Your task to perform on an android device: Show me popular videos on Youtube Image 0: 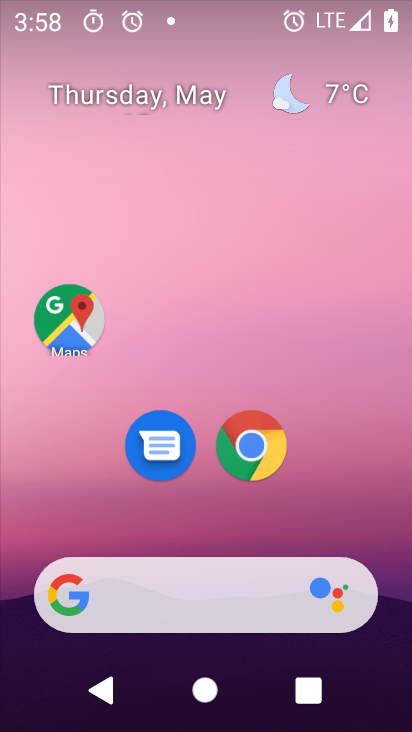
Step 0: press home button
Your task to perform on an android device: Show me popular videos on Youtube Image 1: 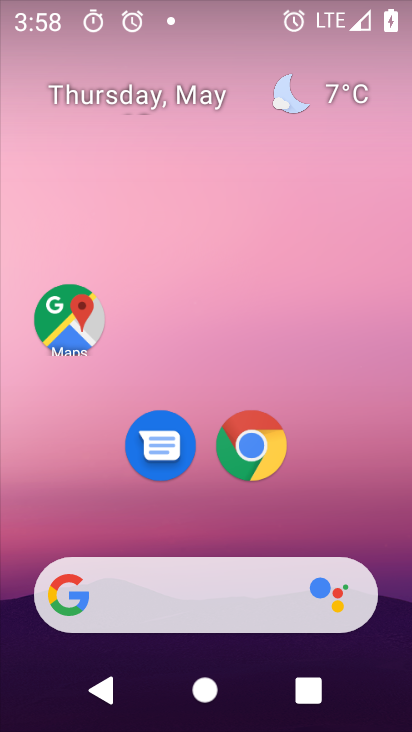
Step 1: drag from (367, 532) to (412, 715)
Your task to perform on an android device: Show me popular videos on Youtube Image 2: 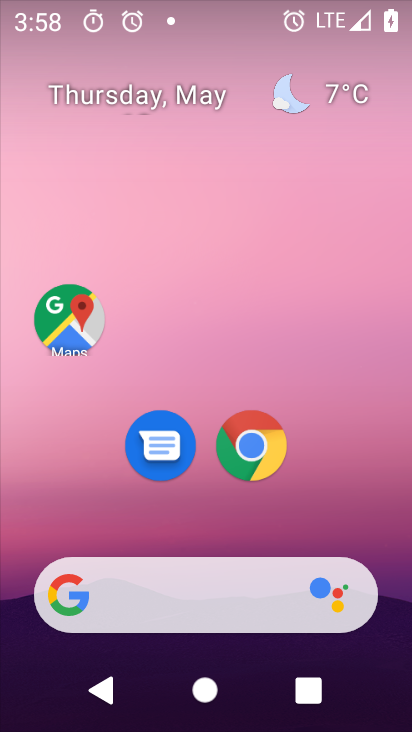
Step 2: drag from (408, 627) to (355, 688)
Your task to perform on an android device: Show me popular videos on Youtube Image 3: 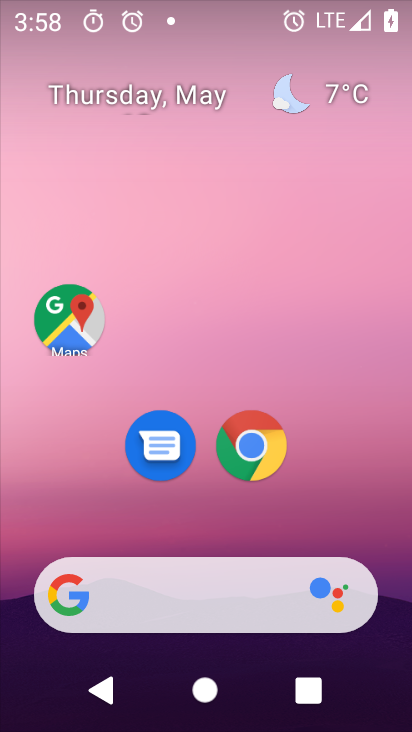
Step 3: drag from (369, 519) to (381, 3)
Your task to perform on an android device: Show me popular videos on Youtube Image 4: 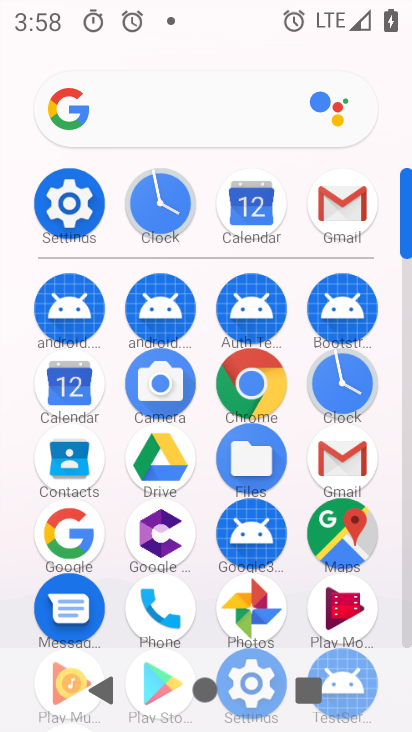
Step 4: drag from (410, 610) to (395, 488)
Your task to perform on an android device: Show me popular videos on Youtube Image 5: 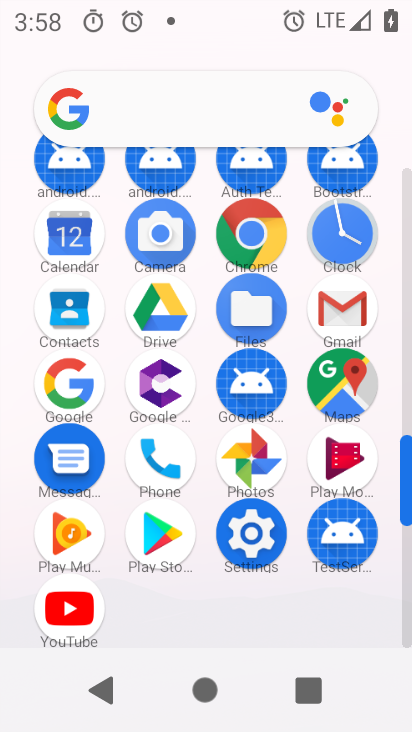
Step 5: click (75, 604)
Your task to perform on an android device: Show me popular videos on Youtube Image 6: 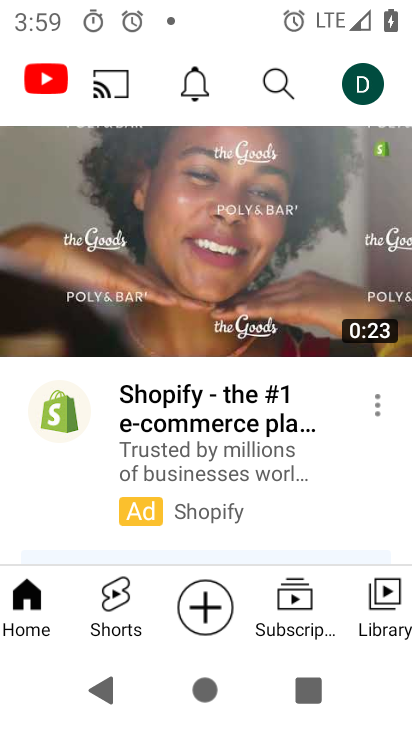
Step 6: click (20, 620)
Your task to perform on an android device: Show me popular videos on Youtube Image 7: 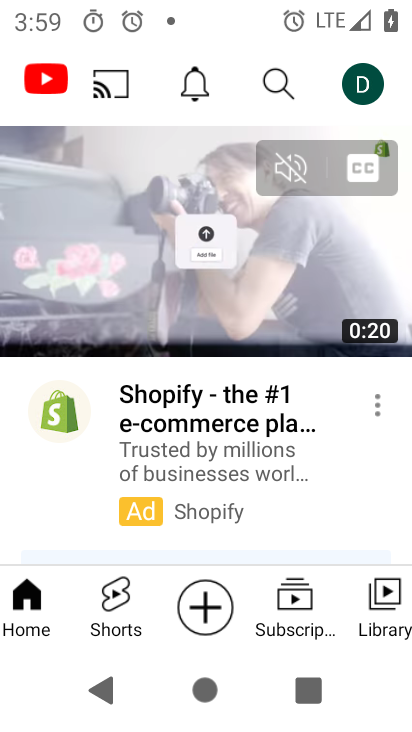
Step 7: task complete